Your task to perform on an android device: Go to eBay Image 0: 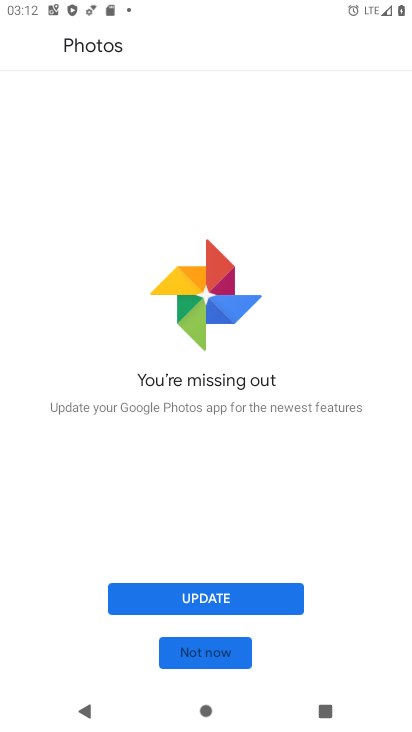
Step 0: press home button
Your task to perform on an android device: Go to eBay Image 1: 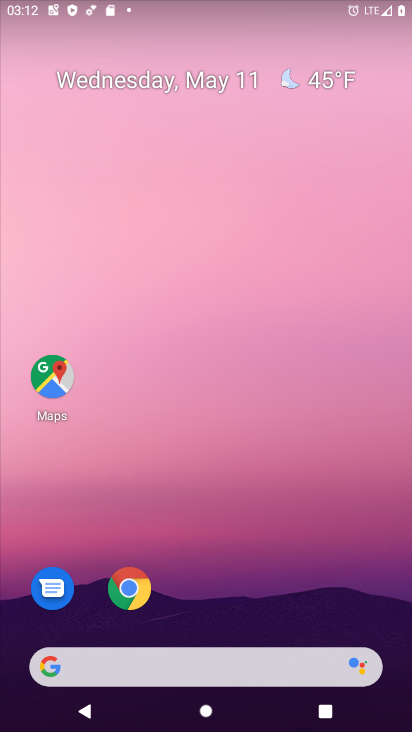
Step 1: click (128, 578)
Your task to perform on an android device: Go to eBay Image 2: 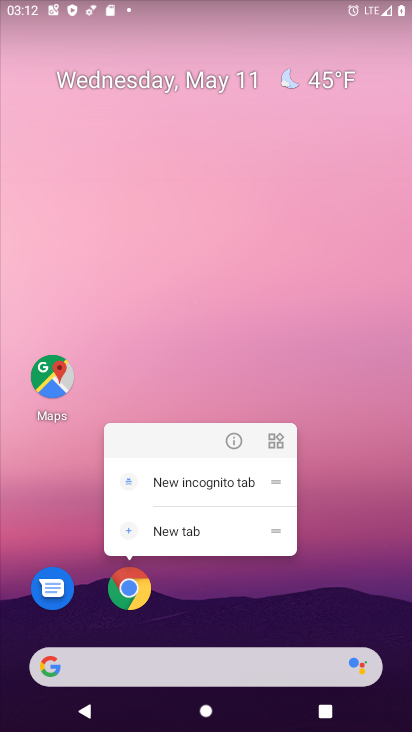
Step 2: click (108, 604)
Your task to perform on an android device: Go to eBay Image 3: 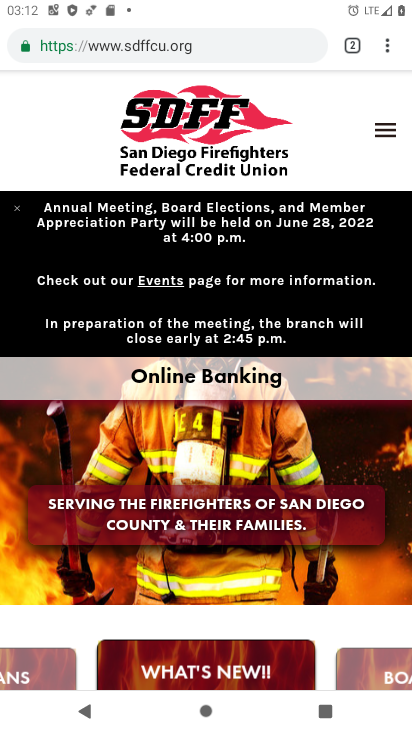
Step 3: click (351, 44)
Your task to perform on an android device: Go to eBay Image 4: 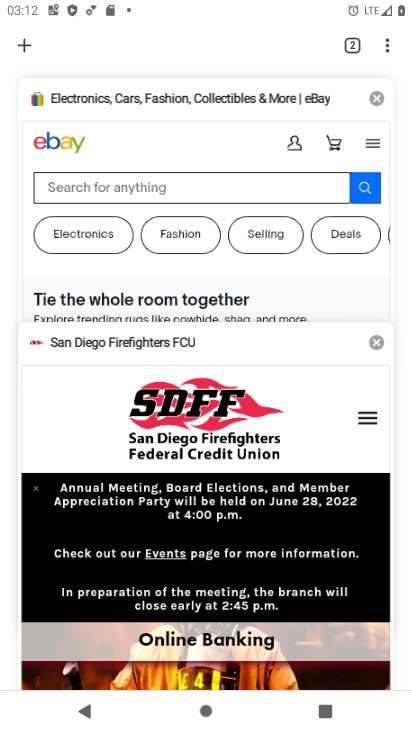
Step 4: click (75, 151)
Your task to perform on an android device: Go to eBay Image 5: 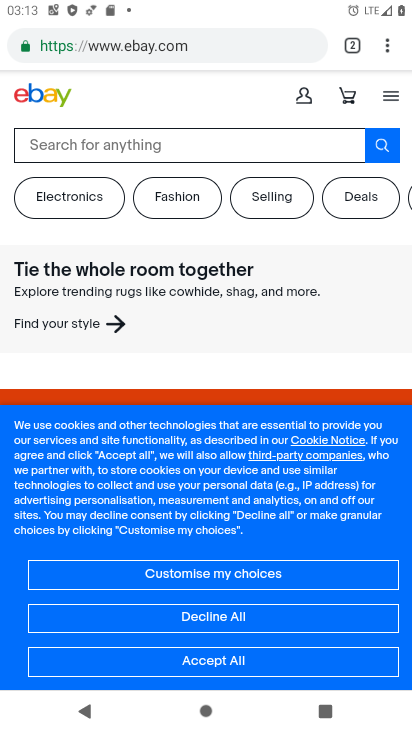
Step 5: task complete